Your task to perform on an android device: change alarm snooze length Image 0: 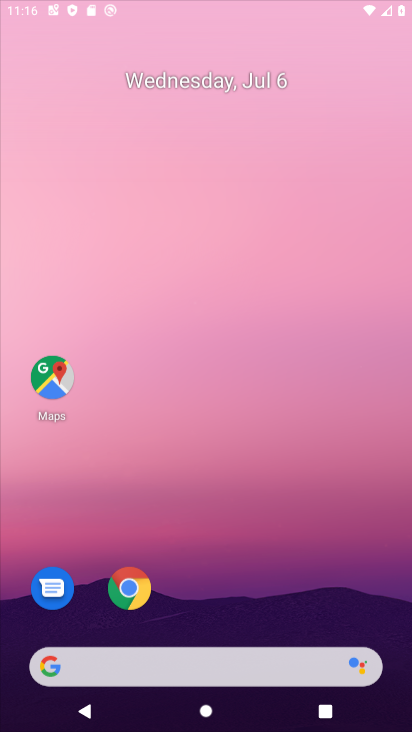
Step 0: click (321, 309)
Your task to perform on an android device: change alarm snooze length Image 1: 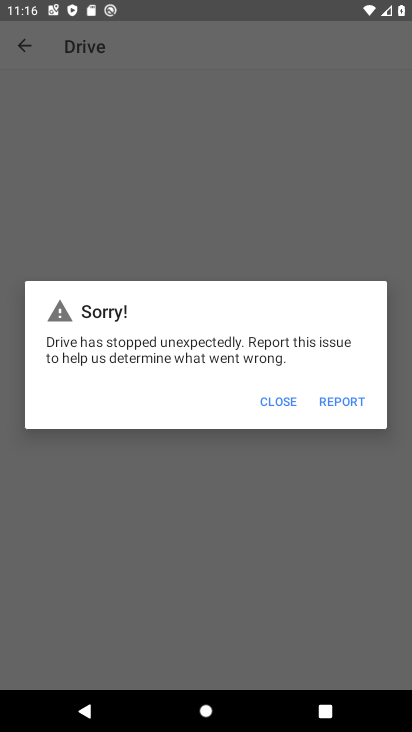
Step 1: press home button
Your task to perform on an android device: change alarm snooze length Image 2: 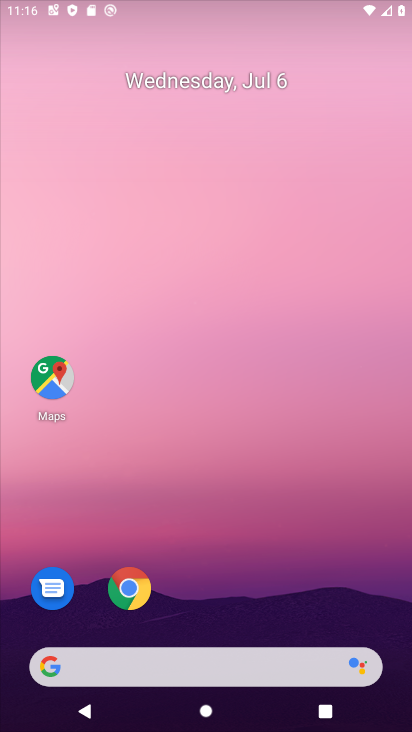
Step 2: drag from (230, 615) to (215, 164)
Your task to perform on an android device: change alarm snooze length Image 3: 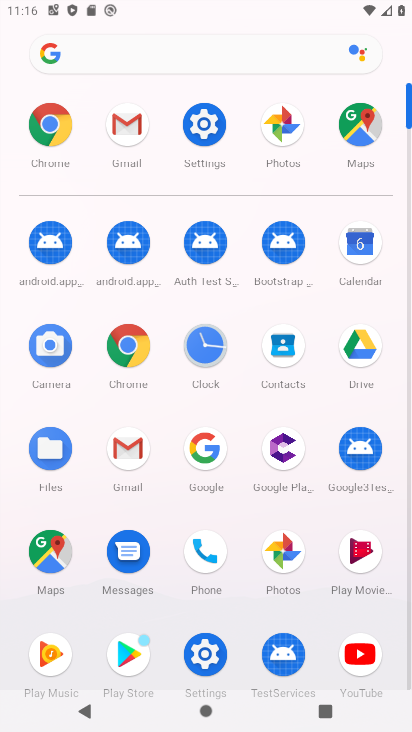
Step 3: click (218, 348)
Your task to perform on an android device: change alarm snooze length Image 4: 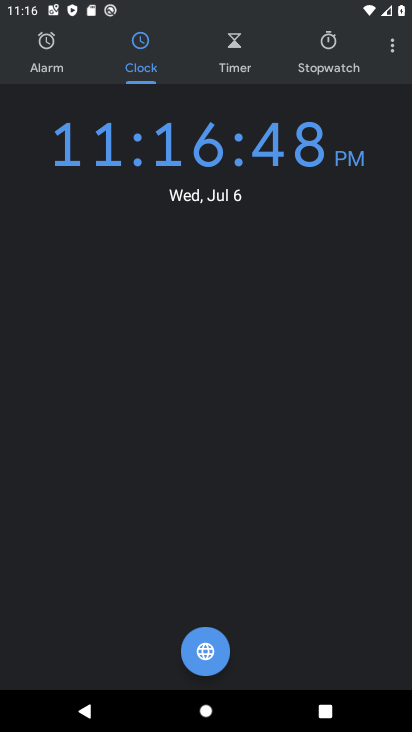
Step 4: click (388, 43)
Your task to perform on an android device: change alarm snooze length Image 5: 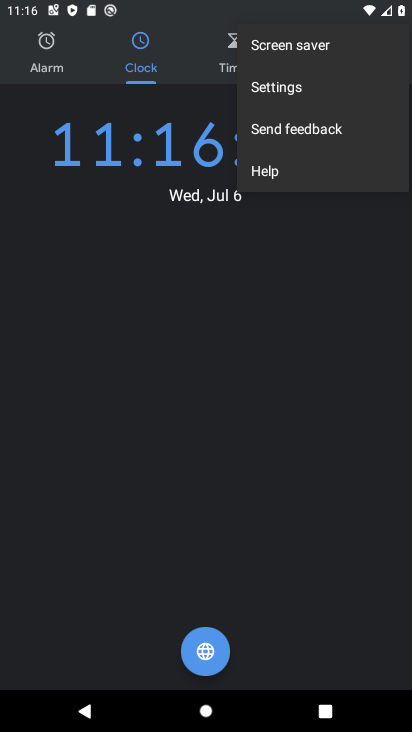
Step 5: click (271, 85)
Your task to perform on an android device: change alarm snooze length Image 6: 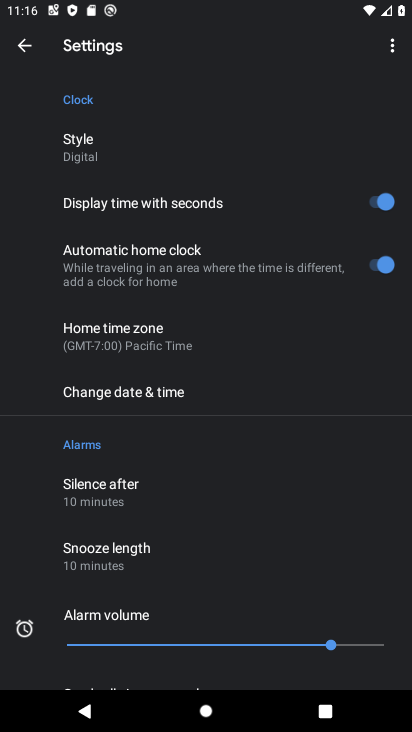
Step 6: drag from (167, 564) to (238, 163)
Your task to perform on an android device: change alarm snooze length Image 7: 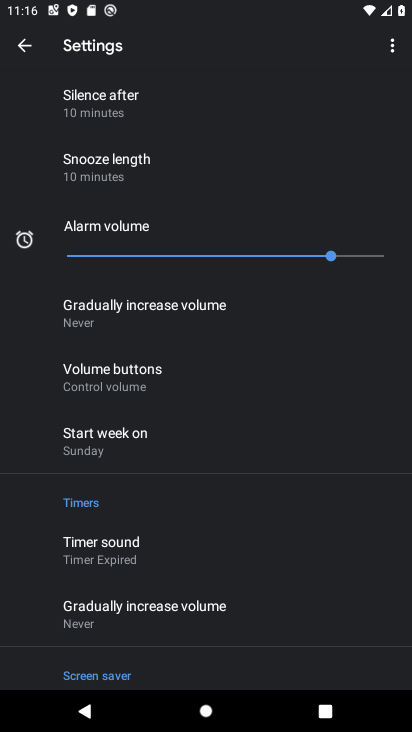
Step 7: click (108, 171)
Your task to perform on an android device: change alarm snooze length Image 8: 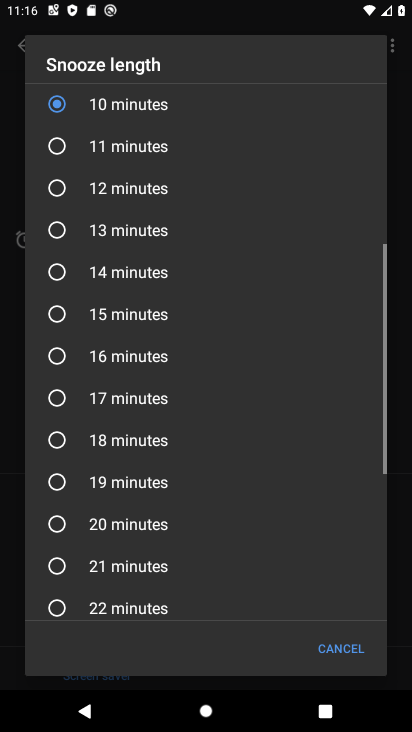
Step 8: click (121, 316)
Your task to perform on an android device: change alarm snooze length Image 9: 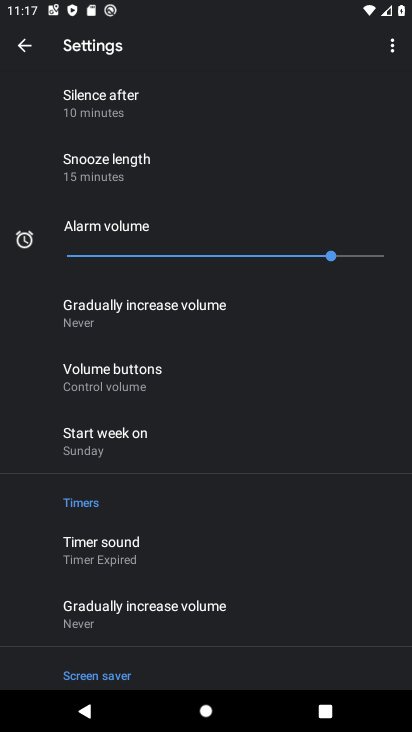
Step 9: task complete